Your task to perform on an android device: turn off location Image 0: 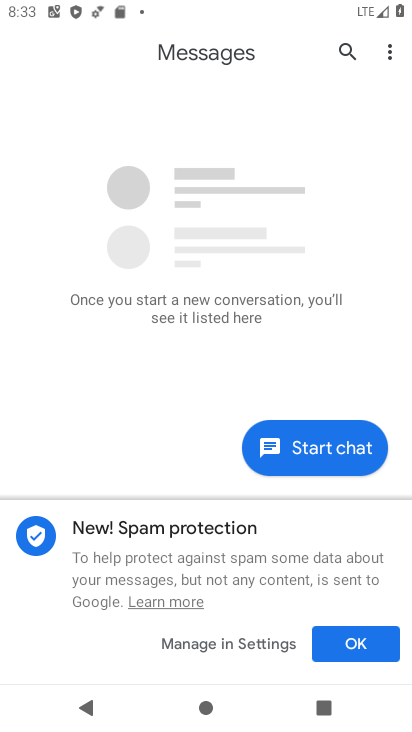
Step 0: press home button
Your task to perform on an android device: turn off location Image 1: 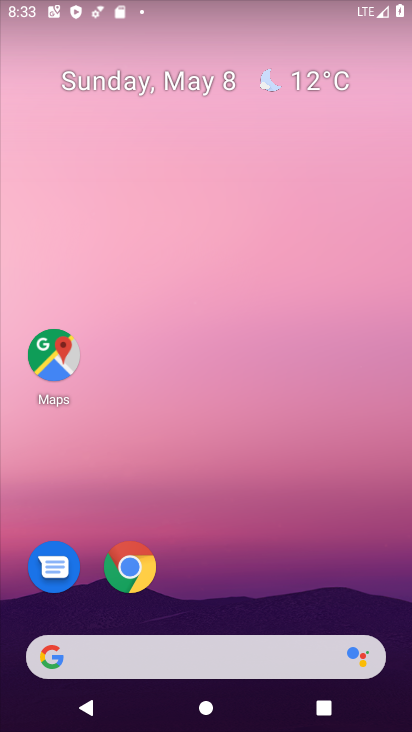
Step 1: drag from (257, 651) to (245, 129)
Your task to perform on an android device: turn off location Image 2: 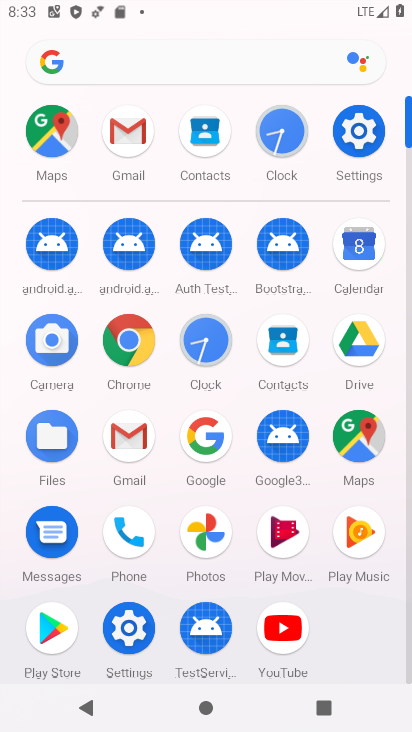
Step 2: click (128, 645)
Your task to perform on an android device: turn off location Image 3: 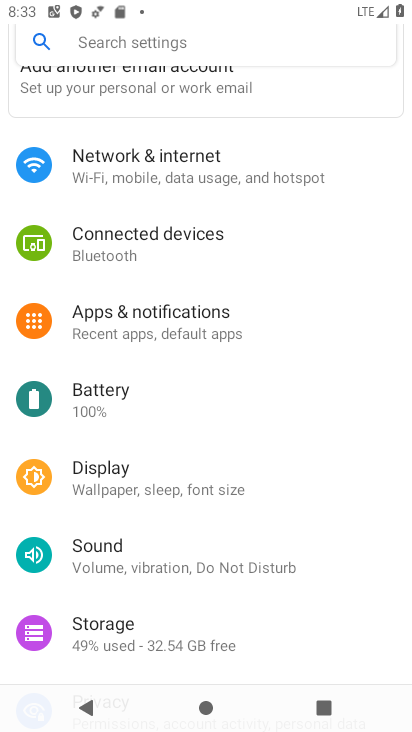
Step 3: drag from (204, 563) to (161, 94)
Your task to perform on an android device: turn off location Image 4: 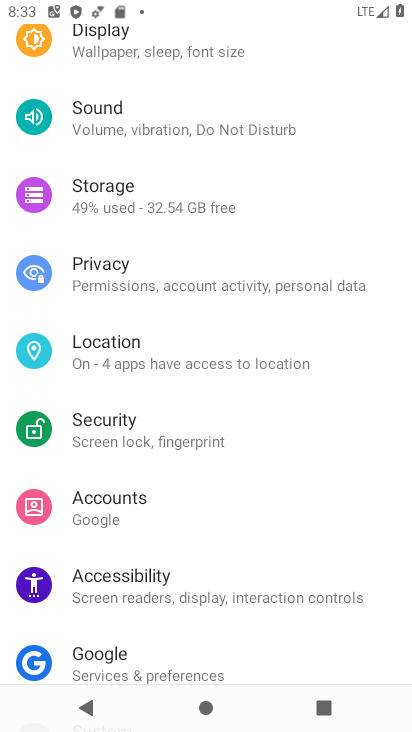
Step 4: click (151, 360)
Your task to perform on an android device: turn off location Image 5: 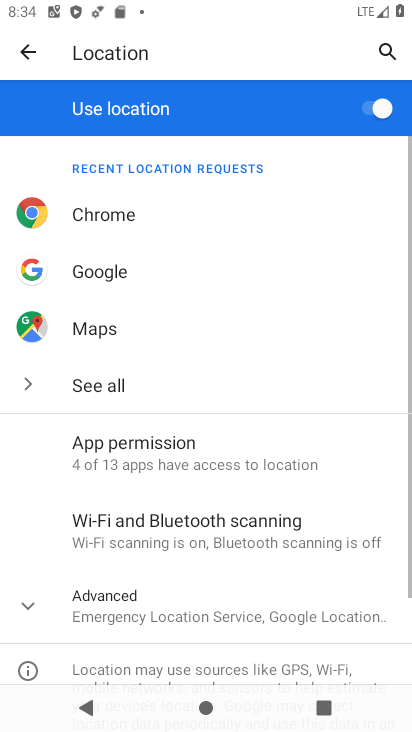
Step 5: click (382, 108)
Your task to perform on an android device: turn off location Image 6: 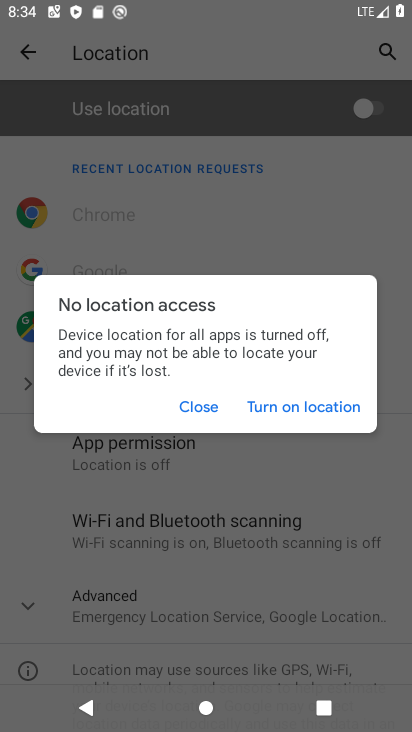
Step 6: task complete